Your task to perform on an android device: Open CNN.com Image 0: 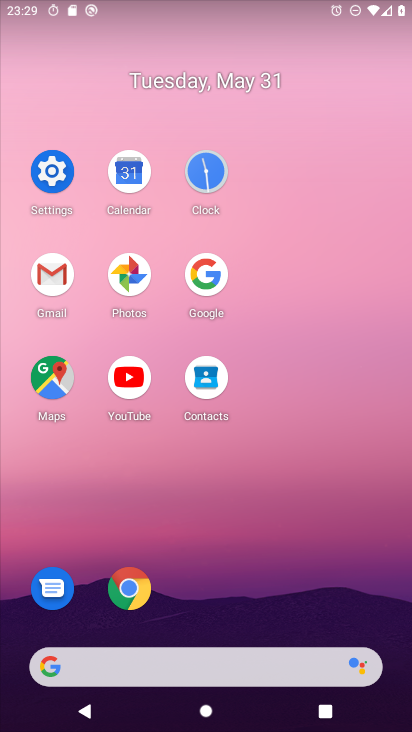
Step 0: click (149, 592)
Your task to perform on an android device: Open CNN.com Image 1: 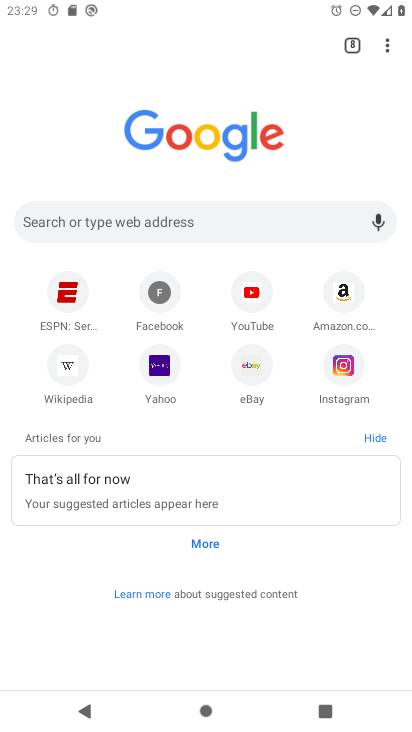
Step 1: click (353, 39)
Your task to perform on an android device: Open CNN.com Image 2: 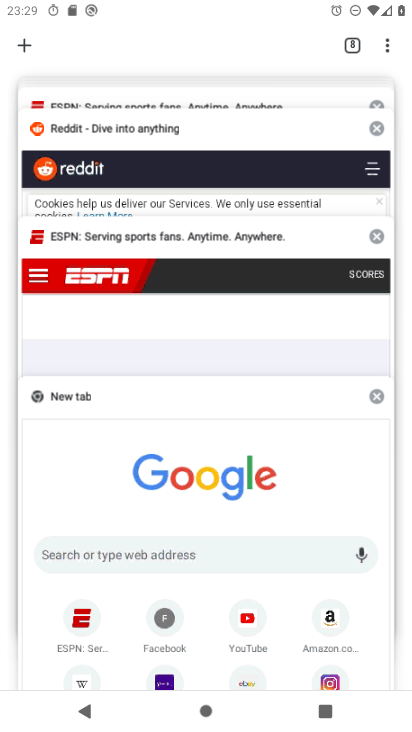
Step 2: drag from (203, 256) to (263, 670)
Your task to perform on an android device: Open CNN.com Image 3: 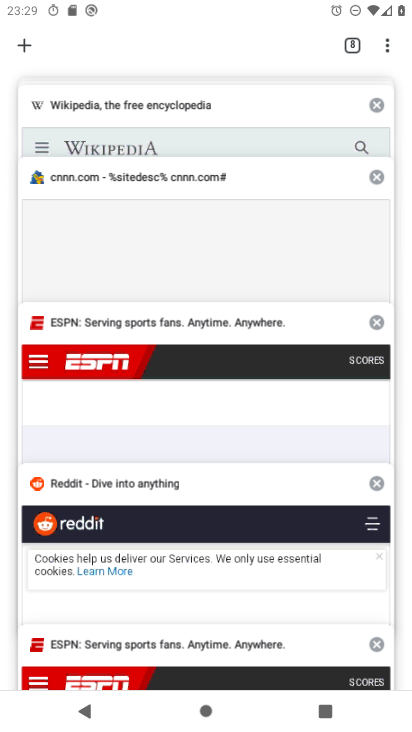
Step 3: drag from (186, 288) to (192, 587)
Your task to perform on an android device: Open CNN.com Image 4: 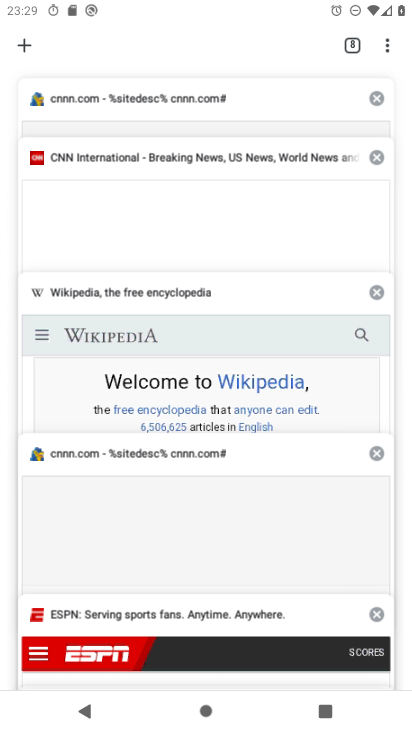
Step 4: click (163, 207)
Your task to perform on an android device: Open CNN.com Image 5: 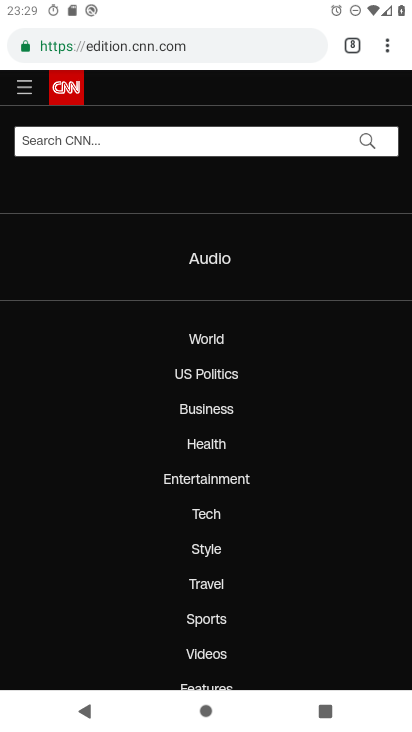
Step 5: task complete